Your task to perform on an android device: Open location settings Image 0: 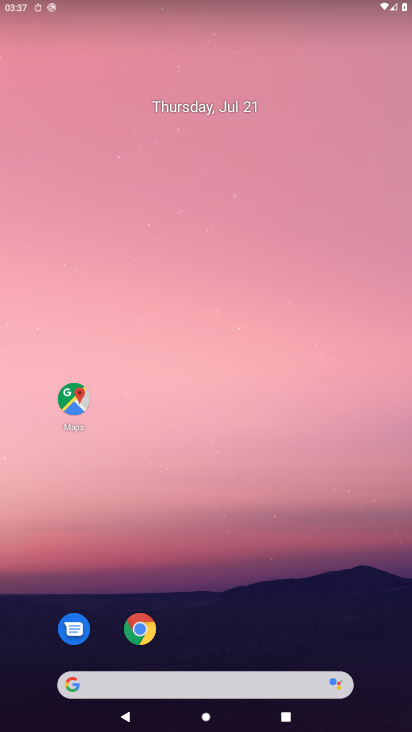
Step 0: drag from (49, 665) to (104, 391)
Your task to perform on an android device: Open location settings Image 1: 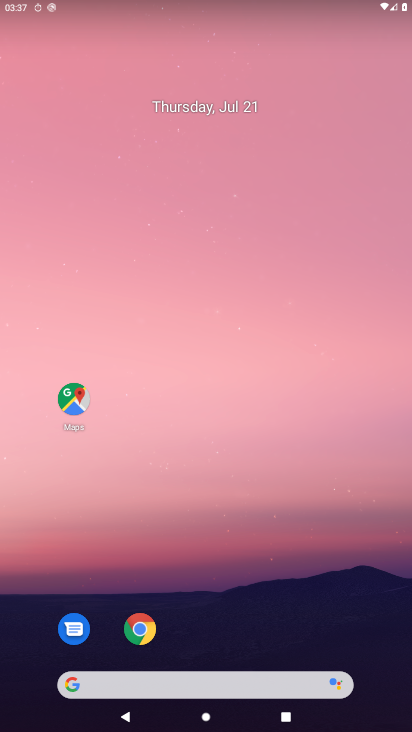
Step 1: drag from (74, 629) to (200, 152)
Your task to perform on an android device: Open location settings Image 2: 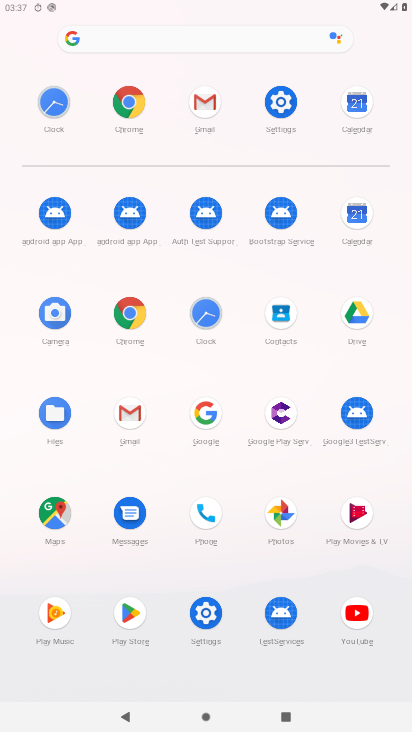
Step 2: click (206, 606)
Your task to perform on an android device: Open location settings Image 3: 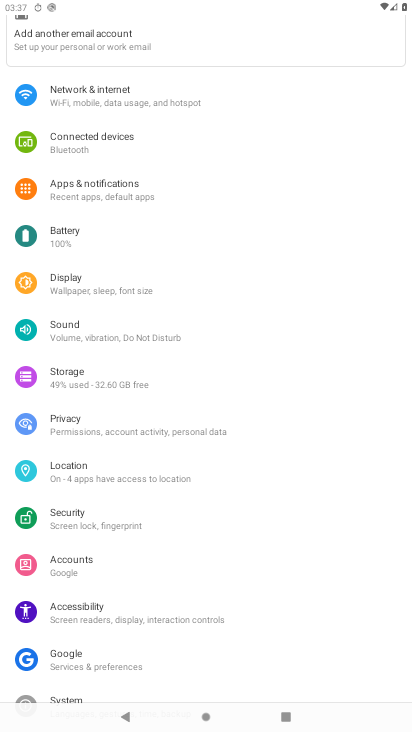
Step 3: click (63, 495)
Your task to perform on an android device: Open location settings Image 4: 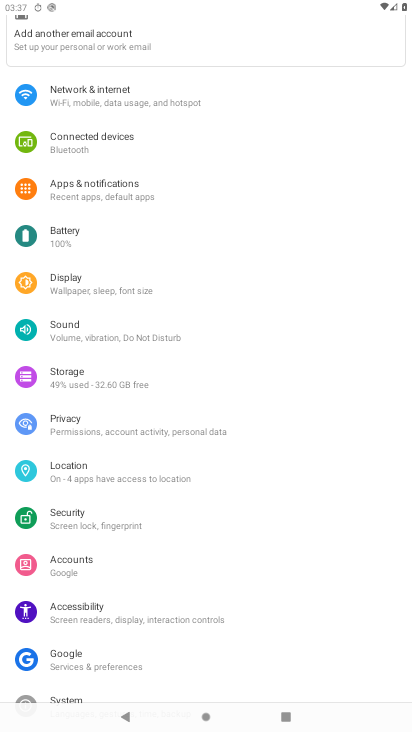
Step 4: click (72, 484)
Your task to perform on an android device: Open location settings Image 5: 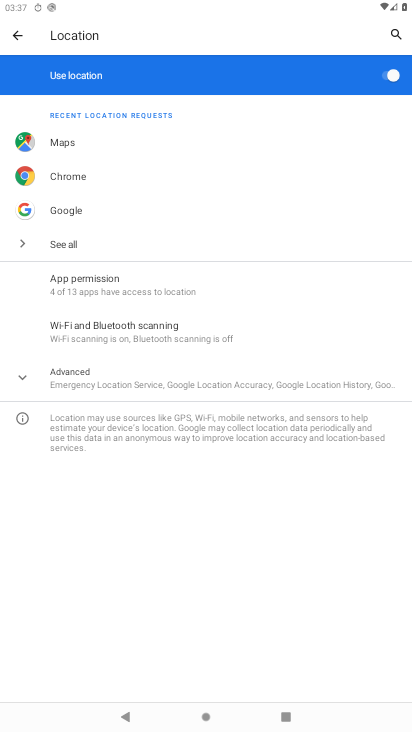
Step 5: click (116, 394)
Your task to perform on an android device: Open location settings Image 6: 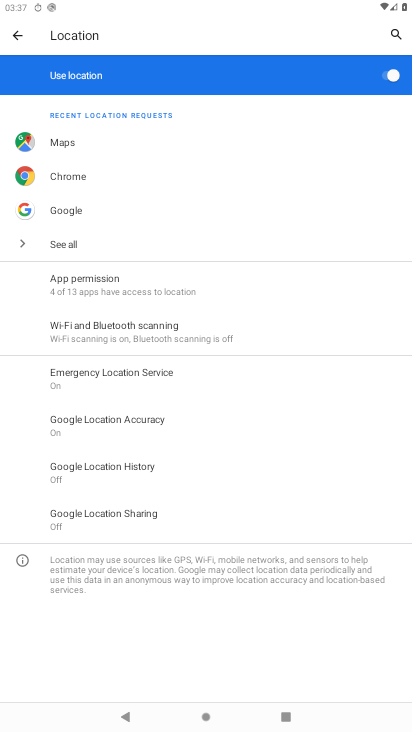
Step 6: click (117, 381)
Your task to perform on an android device: Open location settings Image 7: 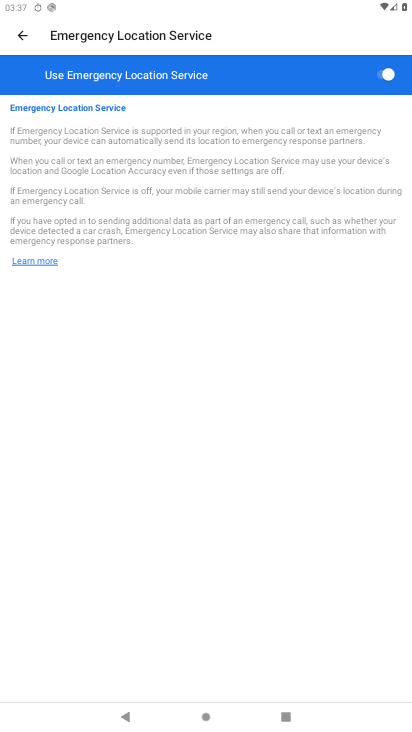
Step 7: task complete